Your task to perform on an android device: toggle show notifications on the lock screen Image 0: 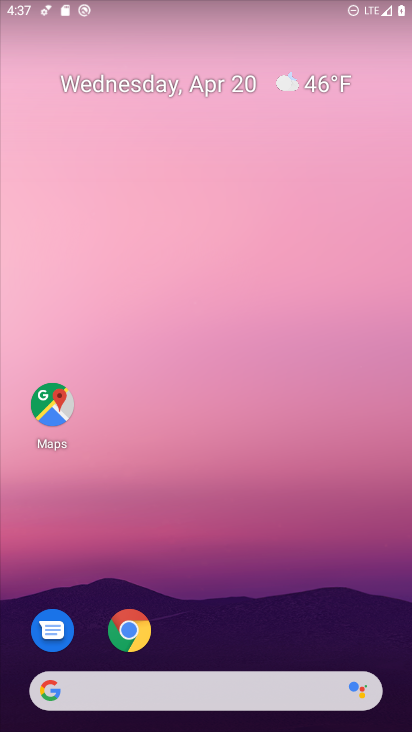
Step 0: drag from (229, 671) to (311, 43)
Your task to perform on an android device: toggle show notifications on the lock screen Image 1: 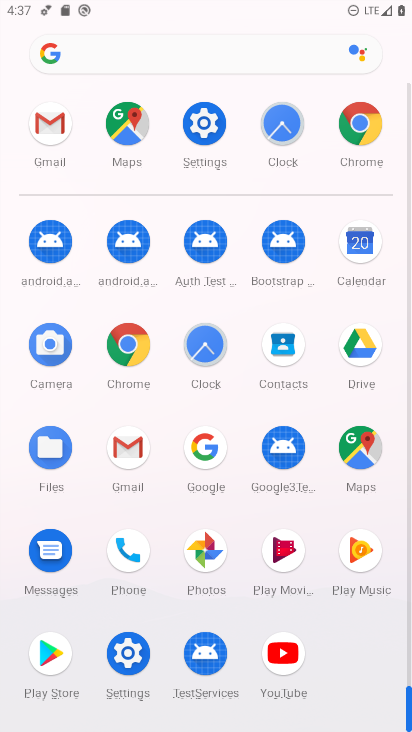
Step 1: click (215, 130)
Your task to perform on an android device: toggle show notifications on the lock screen Image 2: 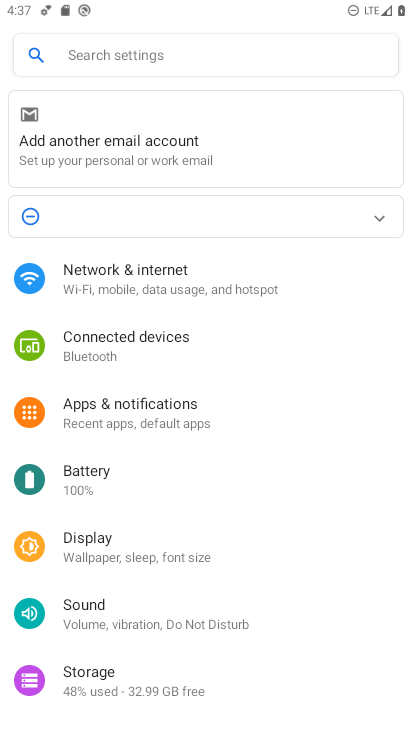
Step 2: click (184, 423)
Your task to perform on an android device: toggle show notifications on the lock screen Image 3: 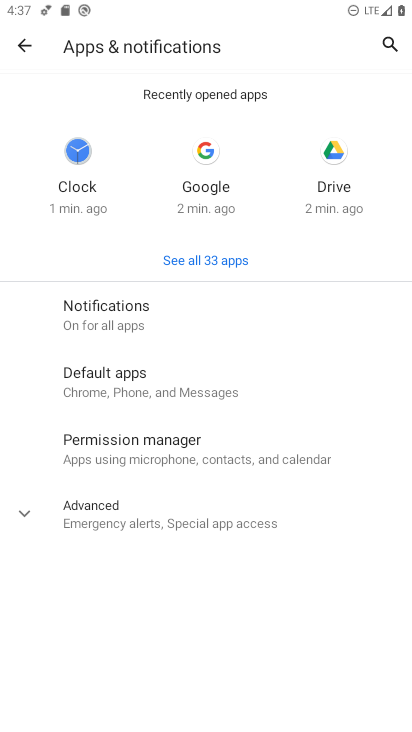
Step 3: click (138, 309)
Your task to perform on an android device: toggle show notifications on the lock screen Image 4: 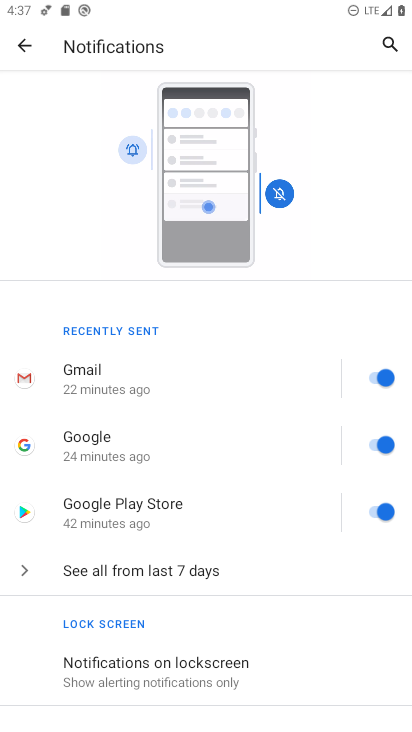
Step 4: drag from (200, 599) to (195, 339)
Your task to perform on an android device: toggle show notifications on the lock screen Image 5: 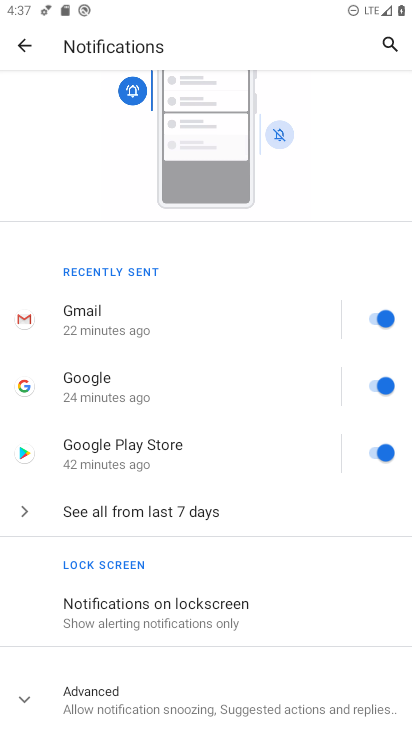
Step 5: click (158, 620)
Your task to perform on an android device: toggle show notifications on the lock screen Image 6: 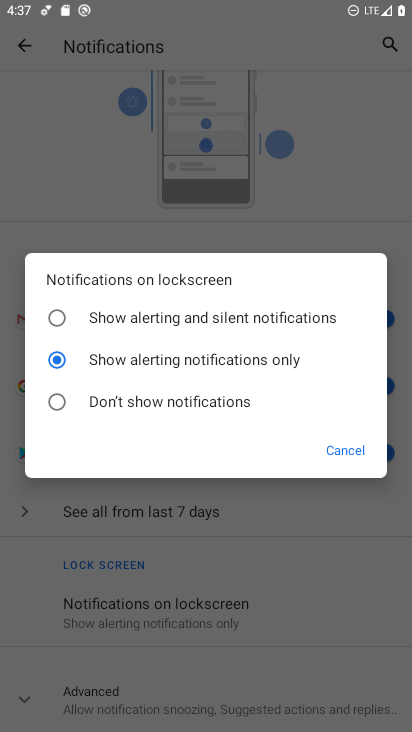
Step 6: click (56, 319)
Your task to perform on an android device: toggle show notifications on the lock screen Image 7: 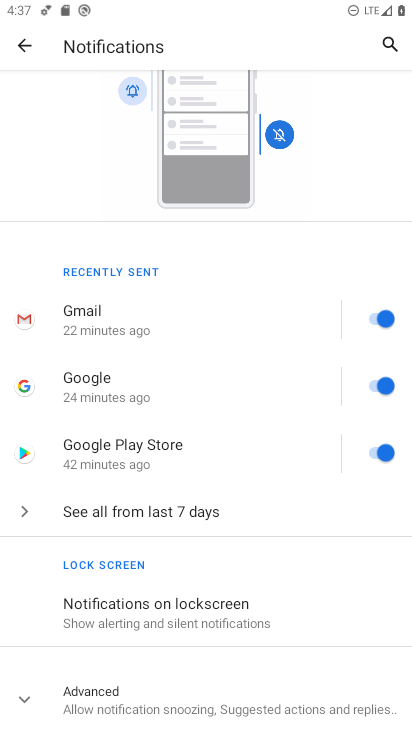
Step 7: task complete